Your task to perform on an android device: turn on the 24-hour format for clock Image 0: 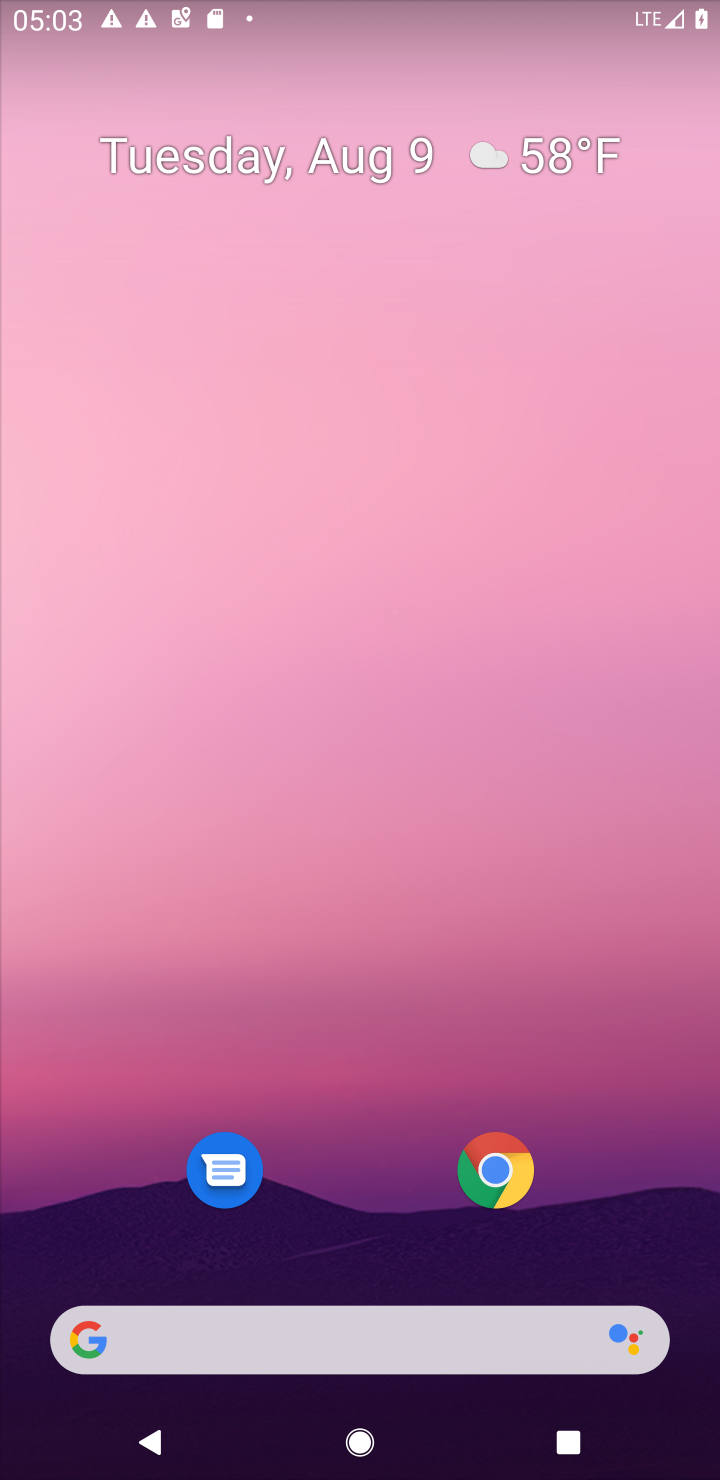
Step 0: press home button
Your task to perform on an android device: turn on the 24-hour format for clock Image 1: 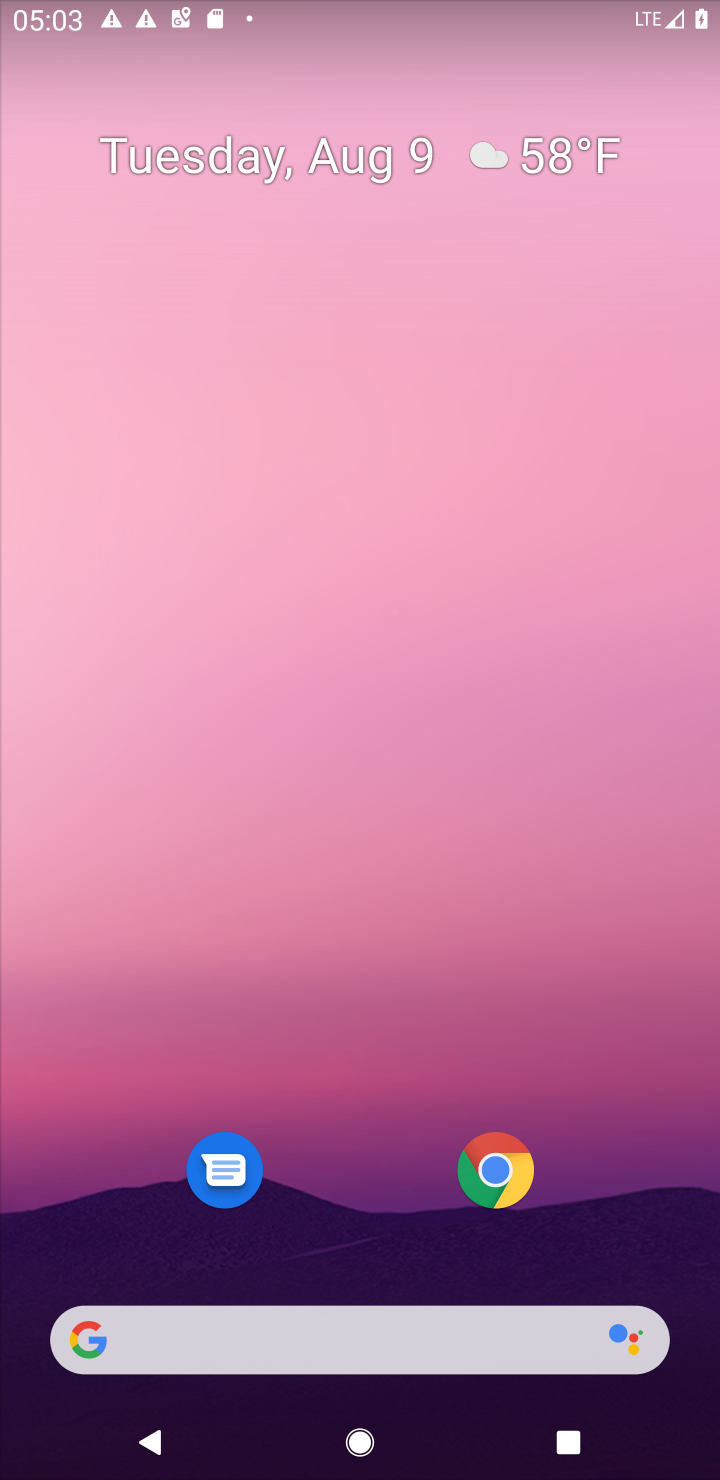
Step 1: press home button
Your task to perform on an android device: turn on the 24-hour format for clock Image 2: 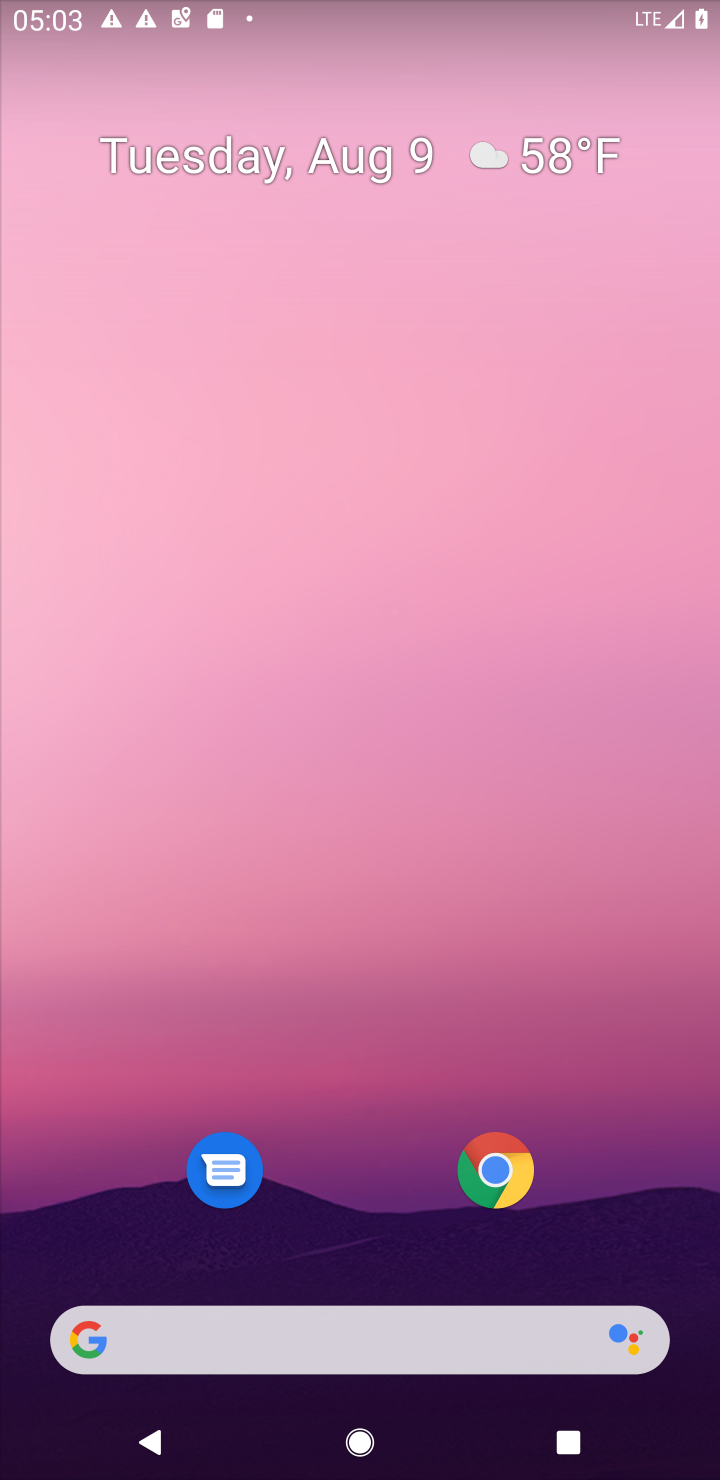
Step 2: drag from (353, 1197) to (369, 93)
Your task to perform on an android device: turn on the 24-hour format for clock Image 3: 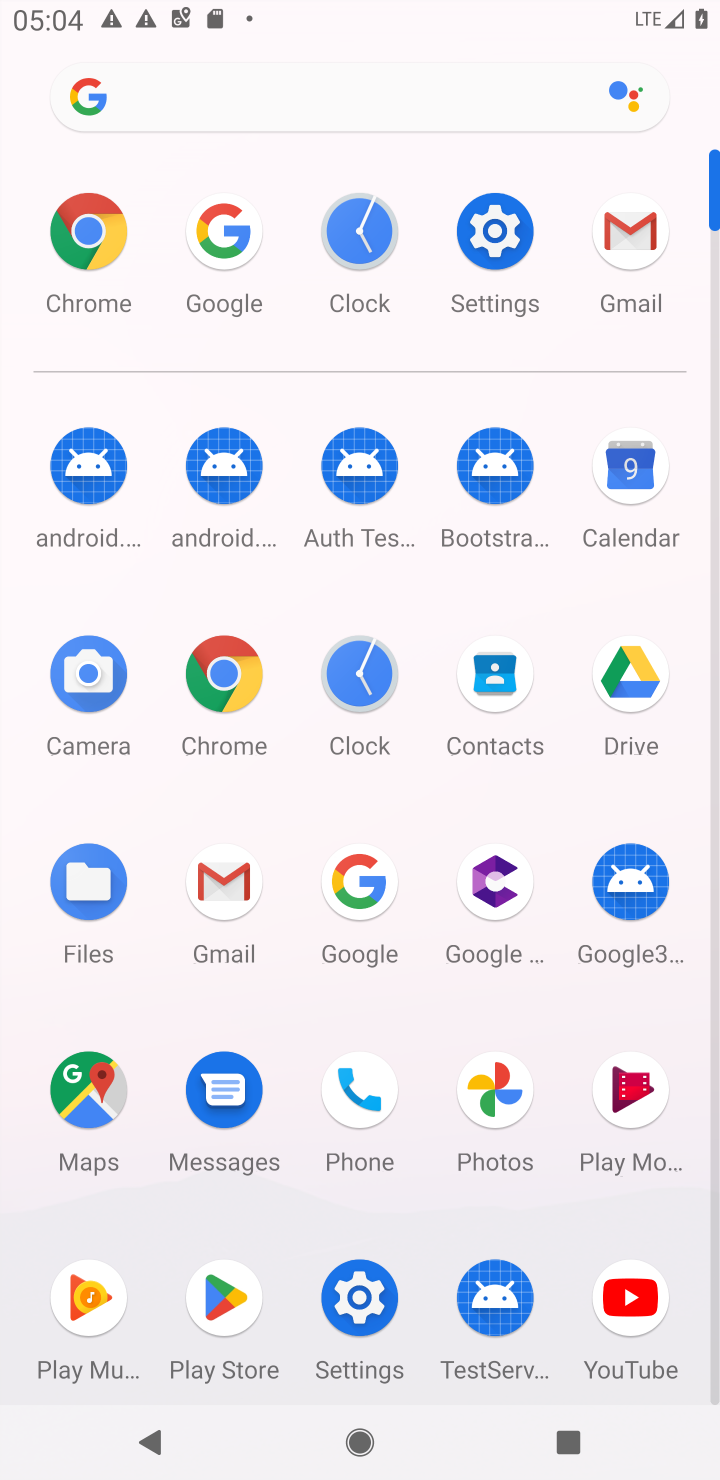
Step 3: press home button
Your task to perform on an android device: turn on the 24-hour format for clock Image 4: 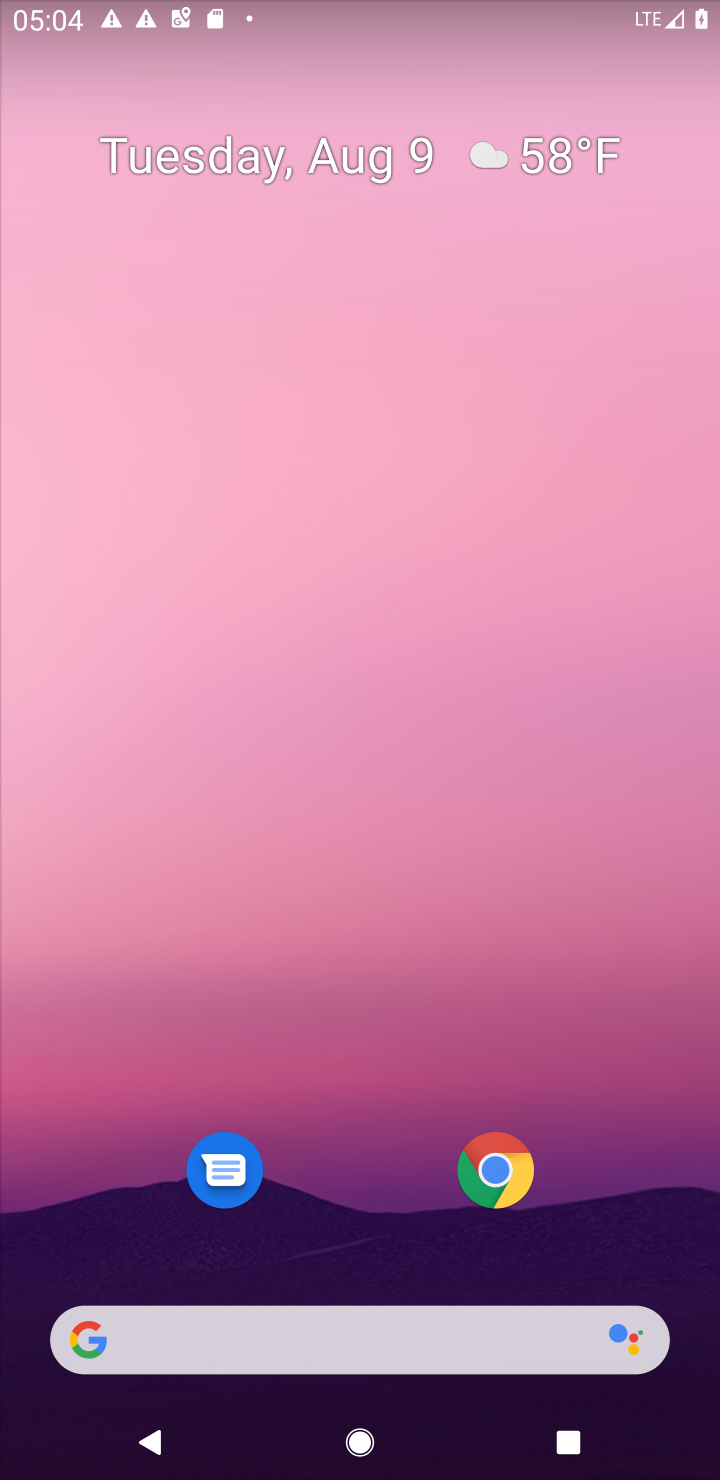
Step 4: drag from (405, 790) to (511, 63)
Your task to perform on an android device: turn on the 24-hour format for clock Image 5: 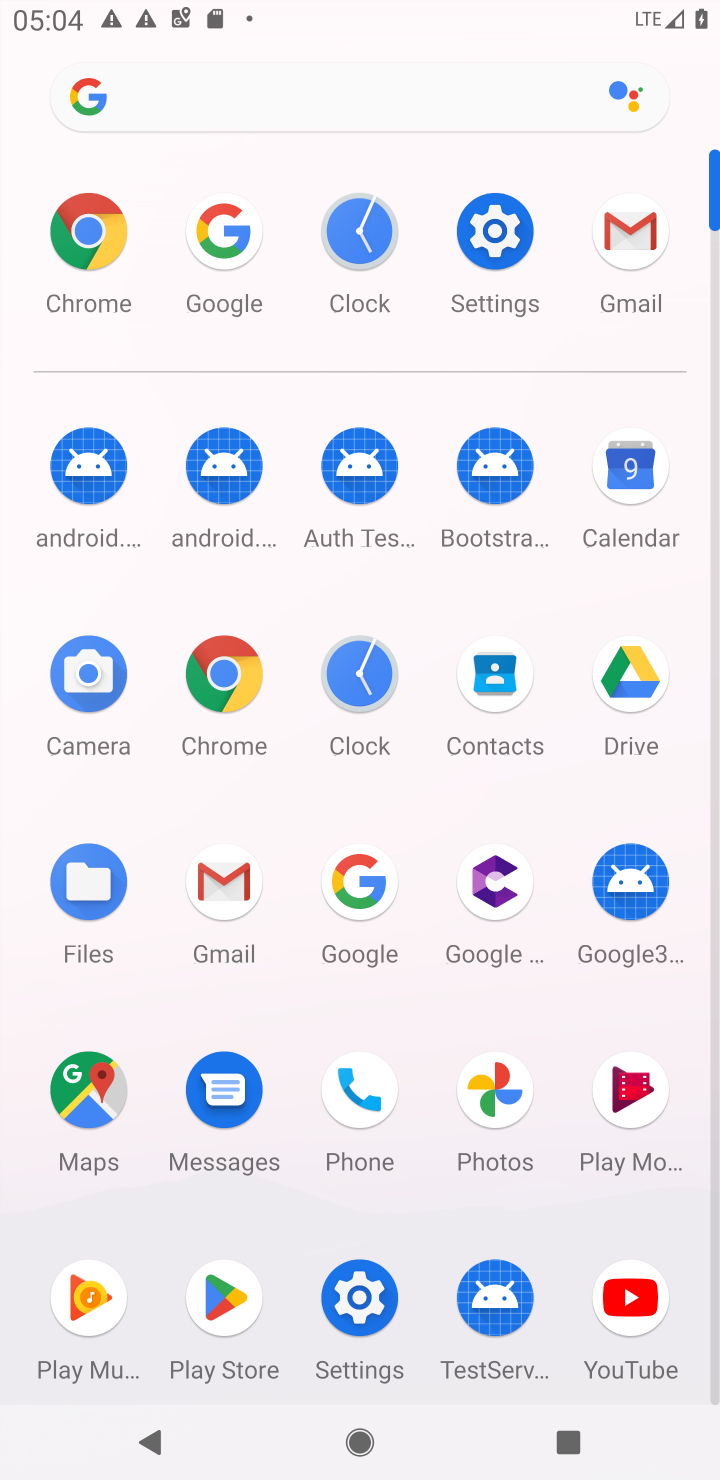
Step 5: click (480, 224)
Your task to perform on an android device: turn on the 24-hour format for clock Image 6: 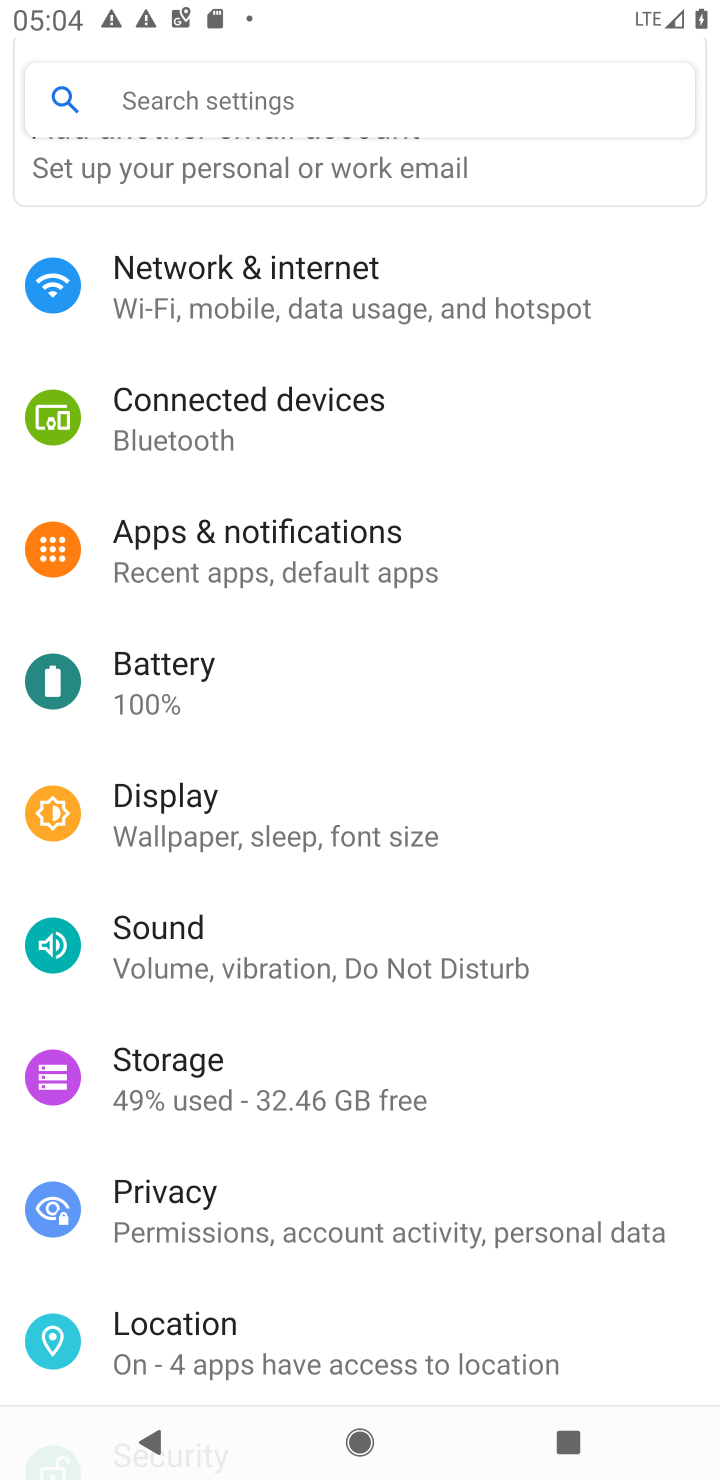
Step 6: drag from (581, 1162) to (510, 136)
Your task to perform on an android device: turn on the 24-hour format for clock Image 7: 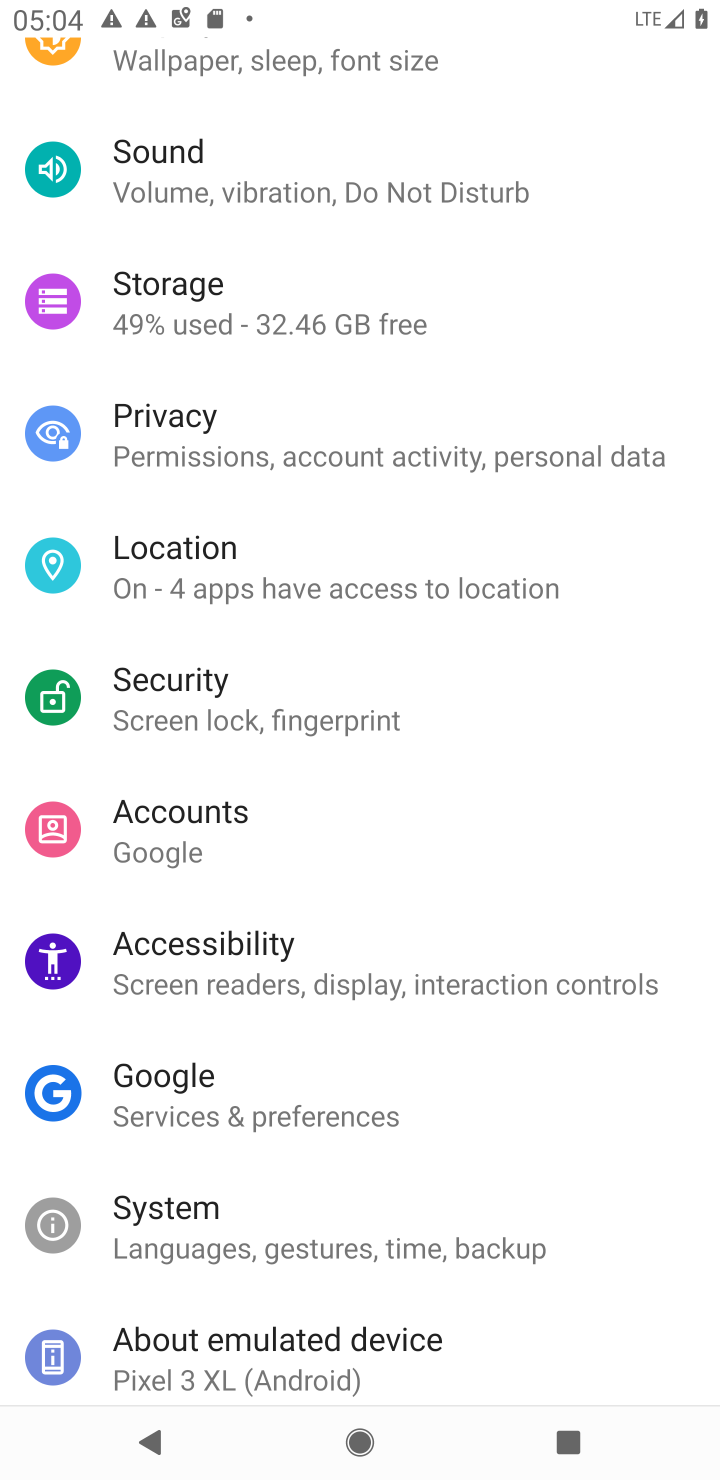
Step 7: click (173, 1222)
Your task to perform on an android device: turn on the 24-hour format for clock Image 8: 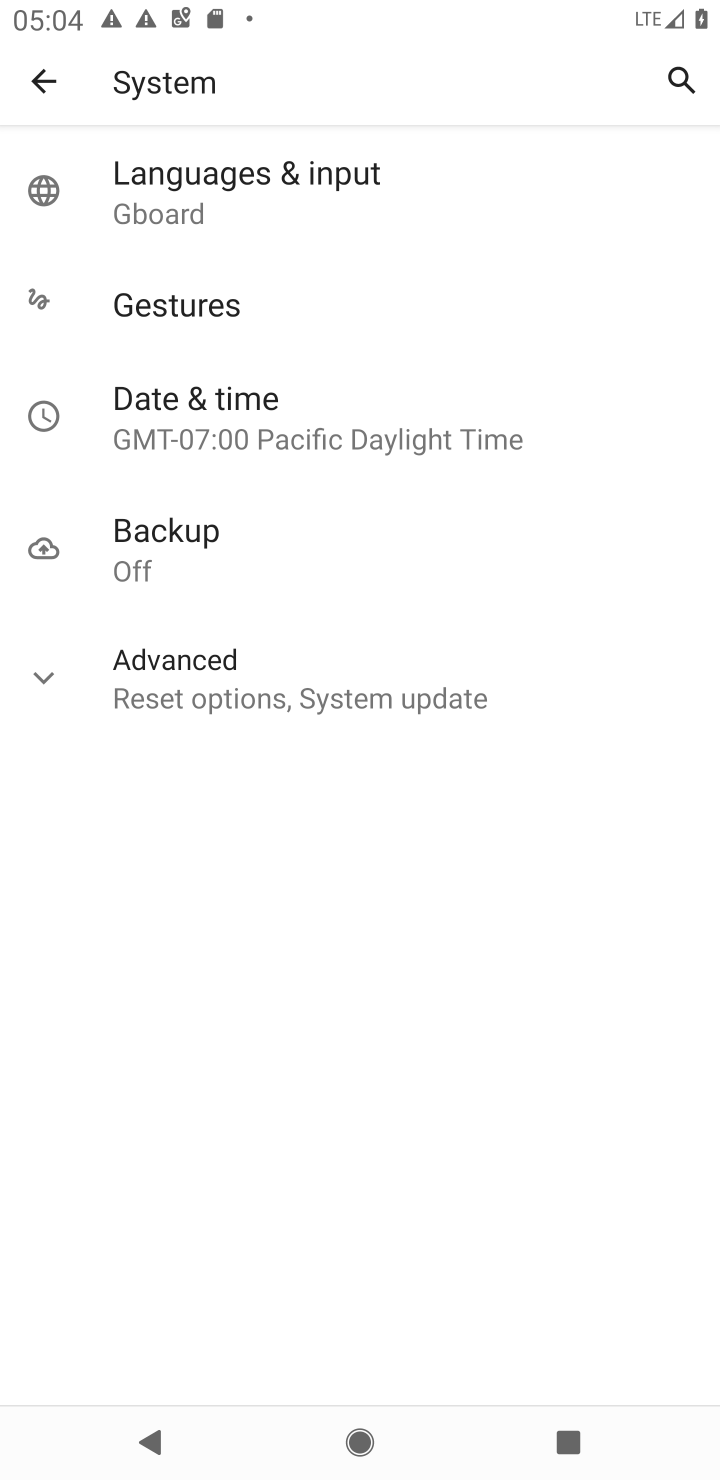
Step 8: click (203, 424)
Your task to perform on an android device: turn on the 24-hour format for clock Image 9: 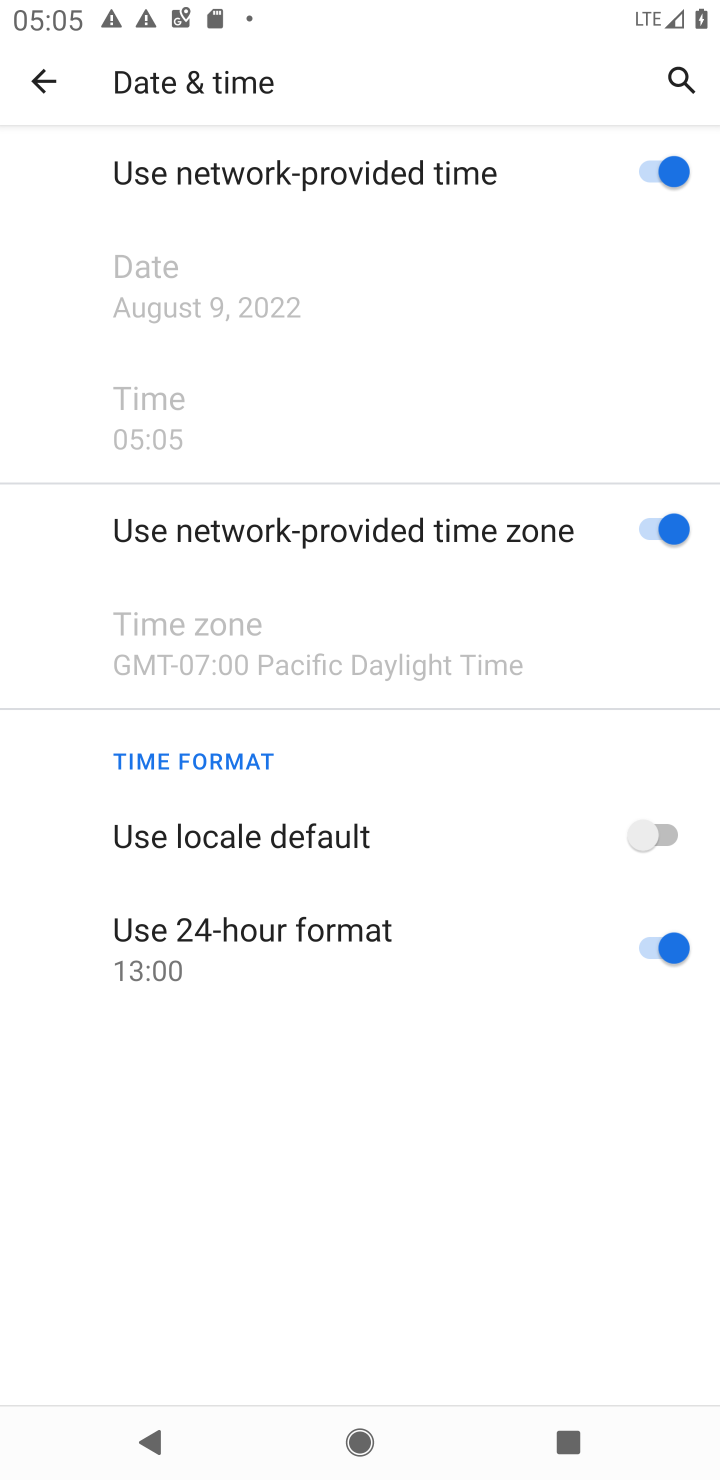
Step 9: task complete